Your task to perform on an android device: Open calendar and show me the first week of next month Image 0: 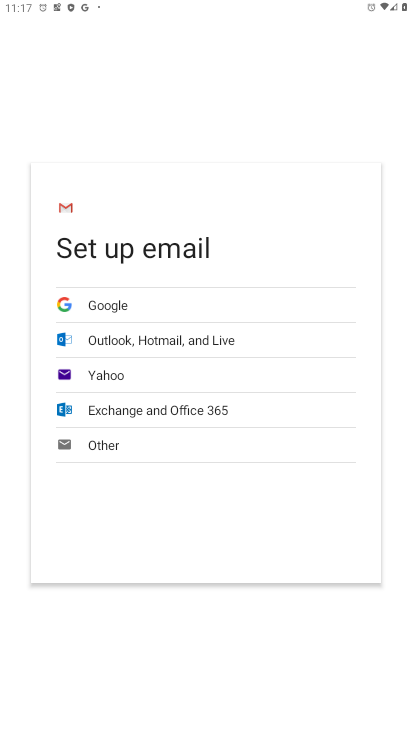
Step 0: press home button
Your task to perform on an android device: Open calendar and show me the first week of next month Image 1: 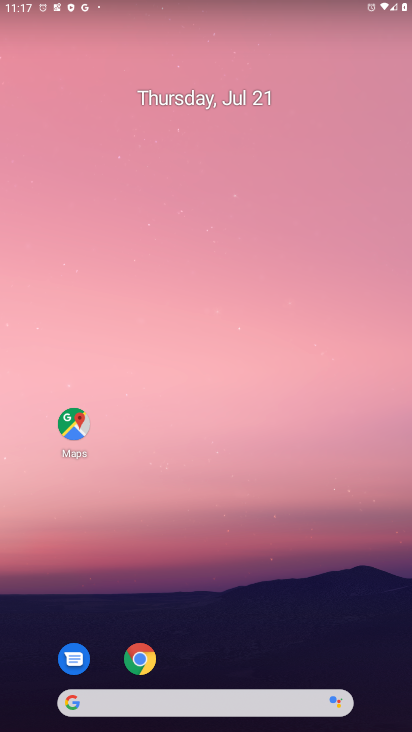
Step 1: drag from (259, 706) to (163, 194)
Your task to perform on an android device: Open calendar and show me the first week of next month Image 2: 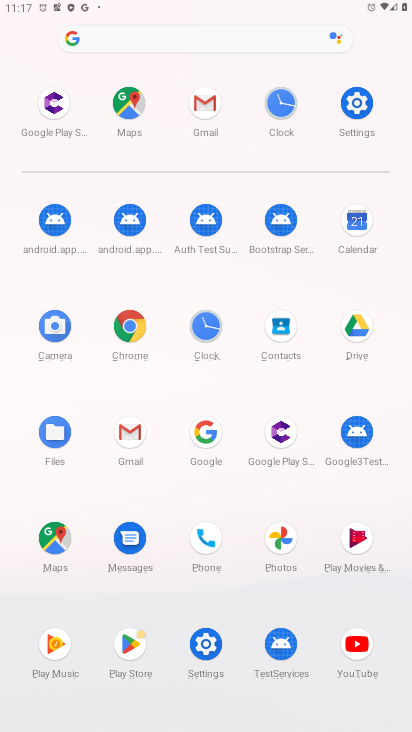
Step 2: click (354, 224)
Your task to perform on an android device: Open calendar and show me the first week of next month Image 3: 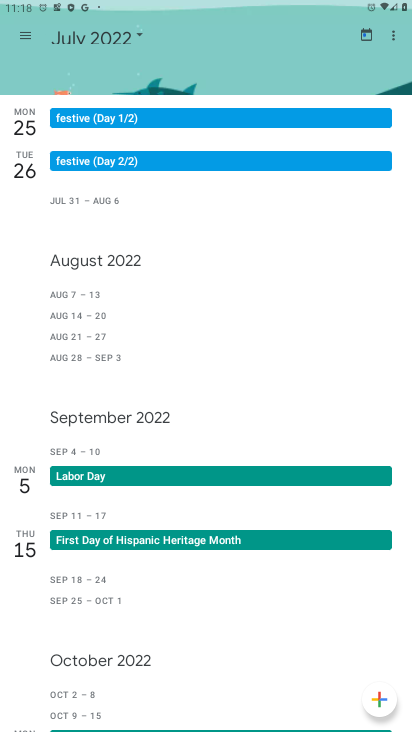
Step 3: click (367, 35)
Your task to perform on an android device: Open calendar and show me the first week of next month Image 4: 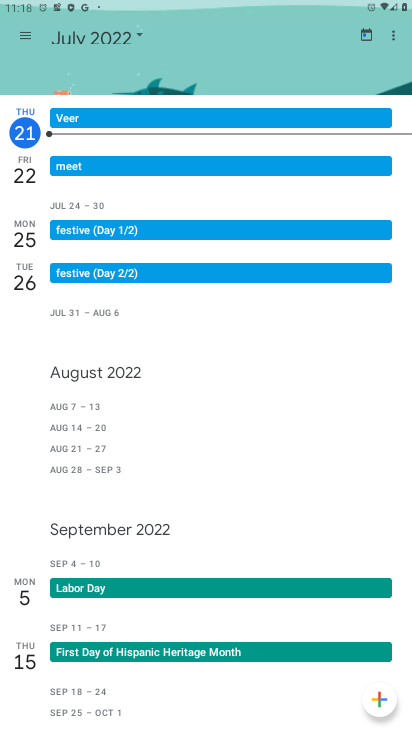
Step 4: click (143, 34)
Your task to perform on an android device: Open calendar and show me the first week of next month Image 5: 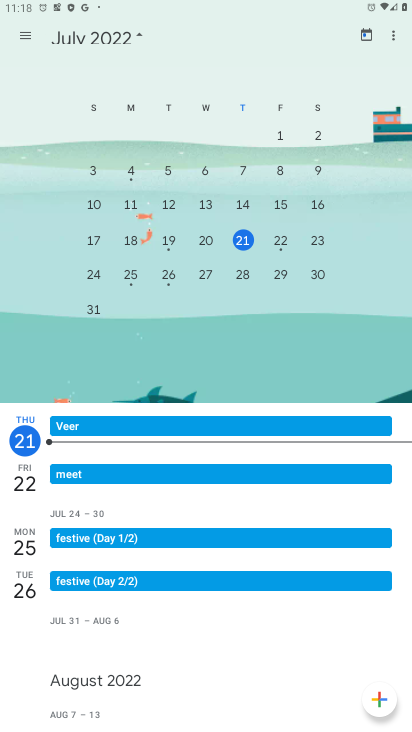
Step 5: drag from (341, 249) to (8, 321)
Your task to perform on an android device: Open calendar and show me the first week of next month Image 6: 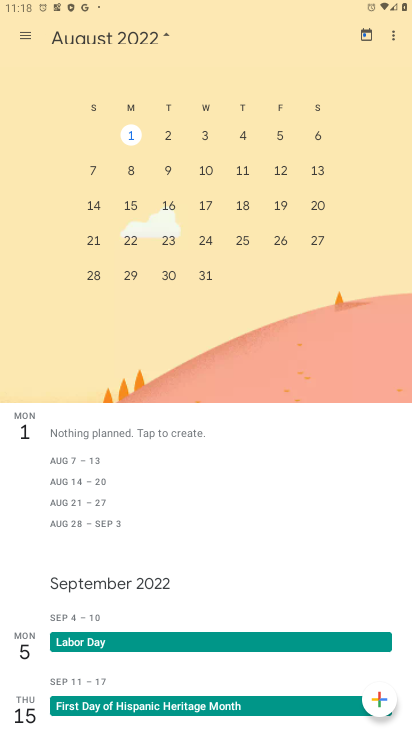
Step 6: click (132, 136)
Your task to perform on an android device: Open calendar and show me the first week of next month Image 7: 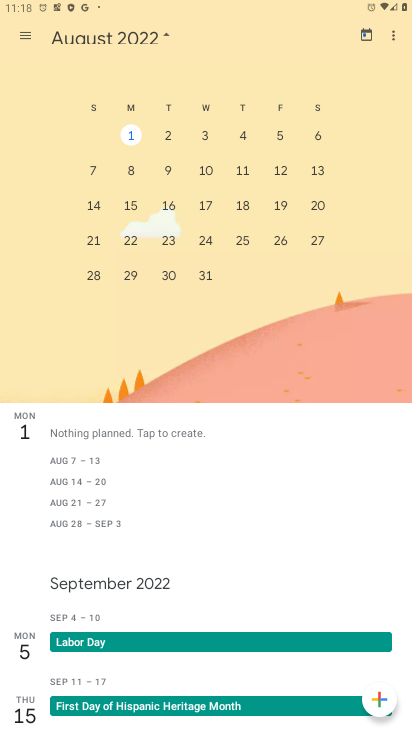
Step 7: click (24, 34)
Your task to perform on an android device: Open calendar and show me the first week of next month Image 8: 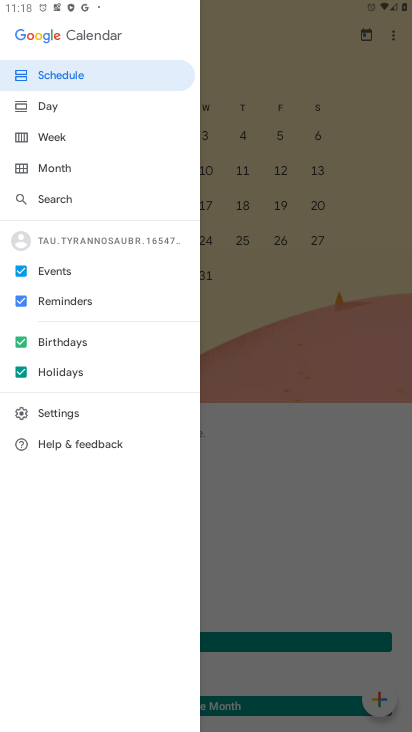
Step 8: click (53, 134)
Your task to perform on an android device: Open calendar and show me the first week of next month Image 9: 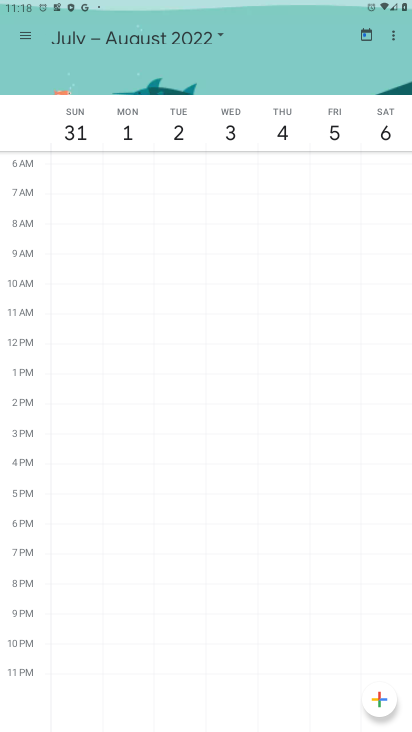
Step 9: task complete